Your task to perform on an android device: turn smart compose on in the gmail app Image 0: 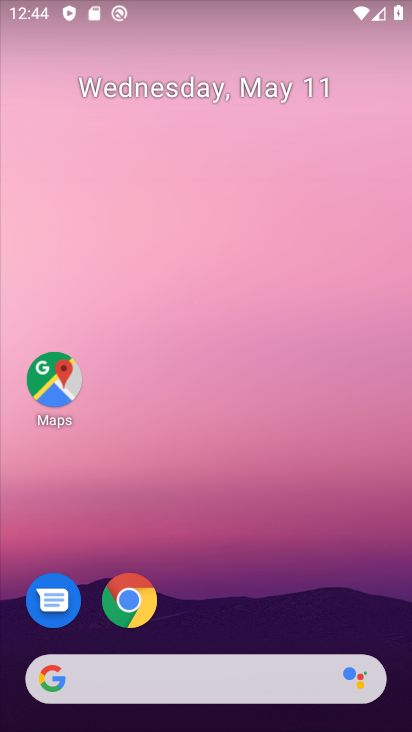
Step 0: drag from (286, 628) to (318, 254)
Your task to perform on an android device: turn smart compose on in the gmail app Image 1: 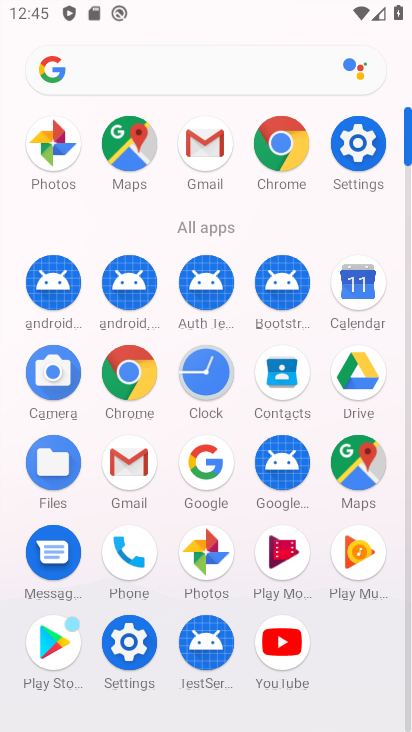
Step 1: click (204, 143)
Your task to perform on an android device: turn smart compose on in the gmail app Image 2: 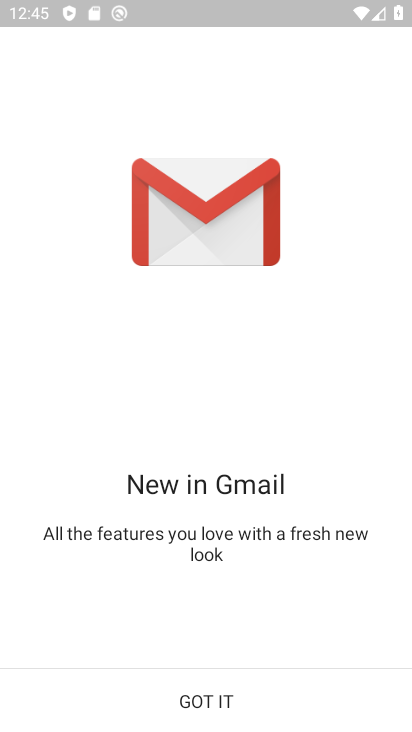
Step 2: click (210, 700)
Your task to perform on an android device: turn smart compose on in the gmail app Image 3: 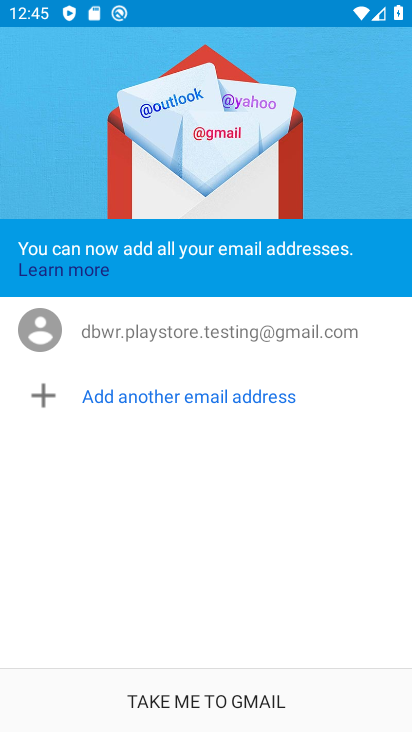
Step 3: click (205, 698)
Your task to perform on an android device: turn smart compose on in the gmail app Image 4: 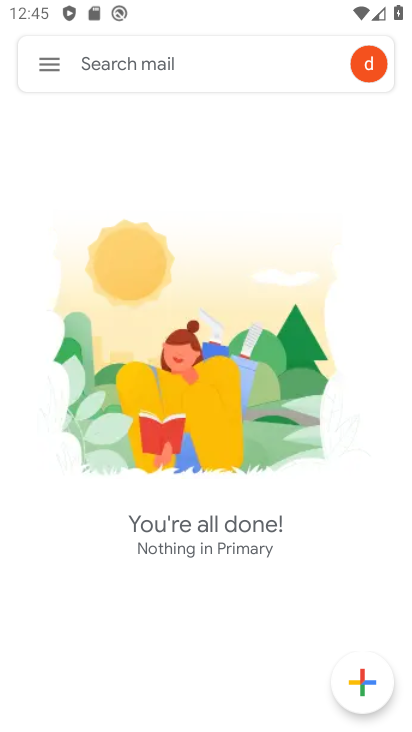
Step 4: click (51, 63)
Your task to perform on an android device: turn smart compose on in the gmail app Image 5: 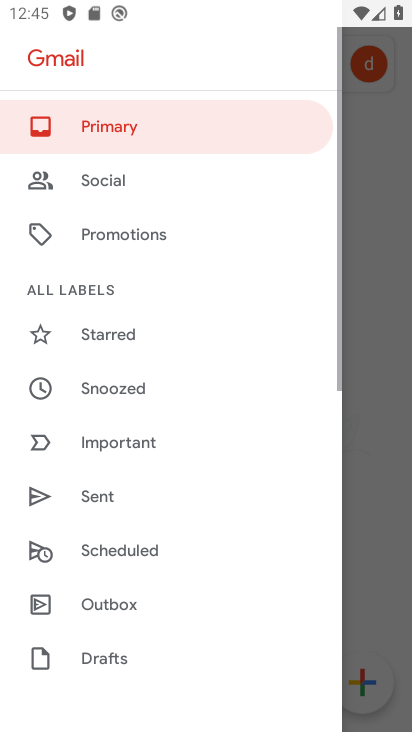
Step 5: drag from (127, 633) to (214, 132)
Your task to perform on an android device: turn smart compose on in the gmail app Image 6: 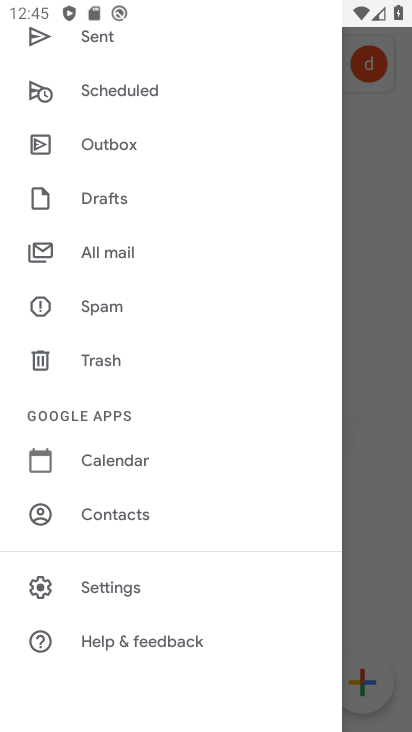
Step 6: click (147, 586)
Your task to perform on an android device: turn smart compose on in the gmail app Image 7: 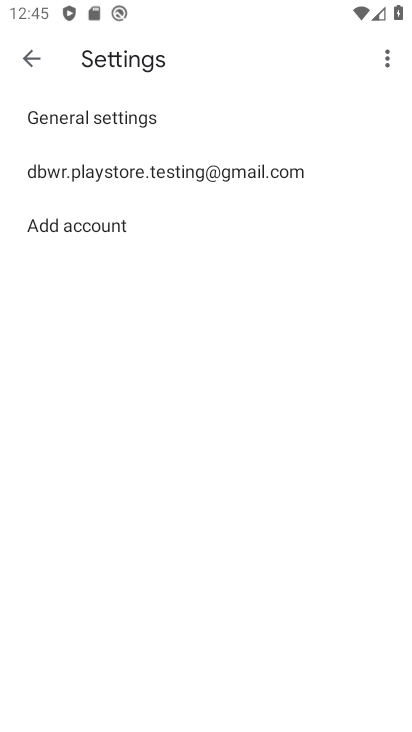
Step 7: click (153, 164)
Your task to perform on an android device: turn smart compose on in the gmail app Image 8: 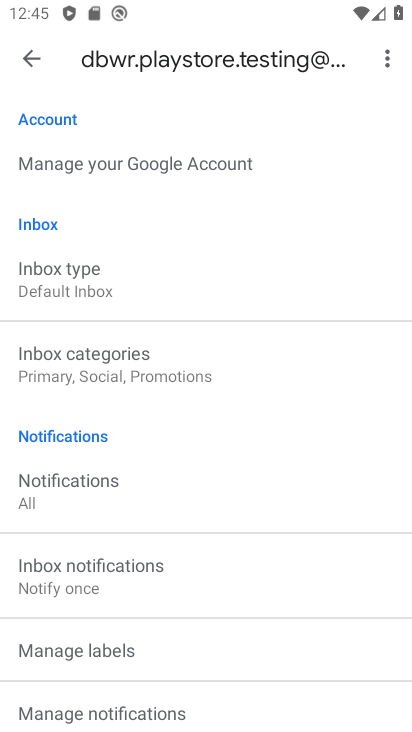
Step 8: task complete